Your task to perform on an android device: Search for Italian restaurants on Maps Image 0: 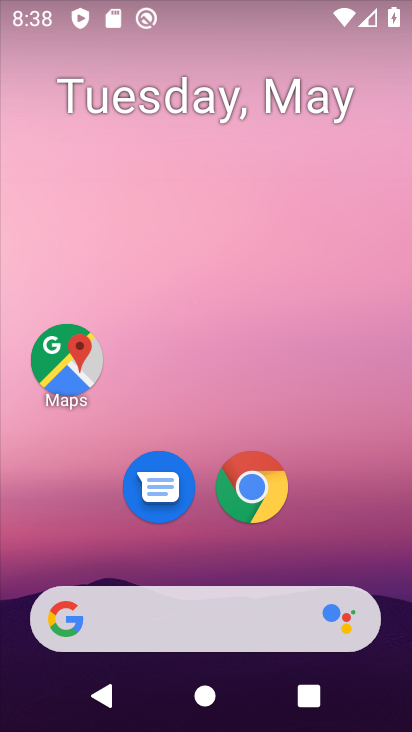
Step 0: press home button
Your task to perform on an android device: Search for Italian restaurants on Maps Image 1: 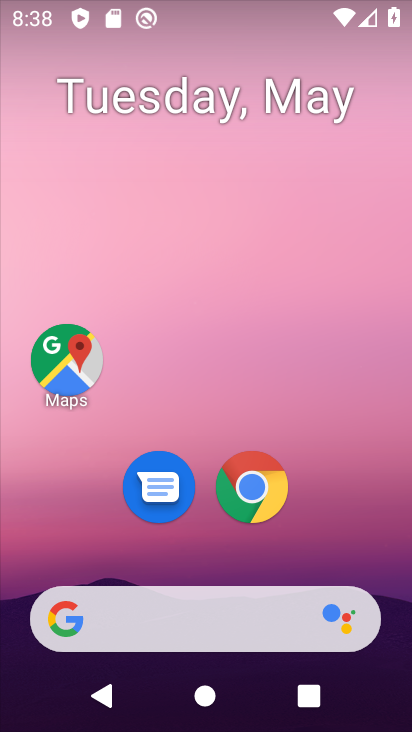
Step 1: click (76, 369)
Your task to perform on an android device: Search for Italian restaurants on Maps Image 2: 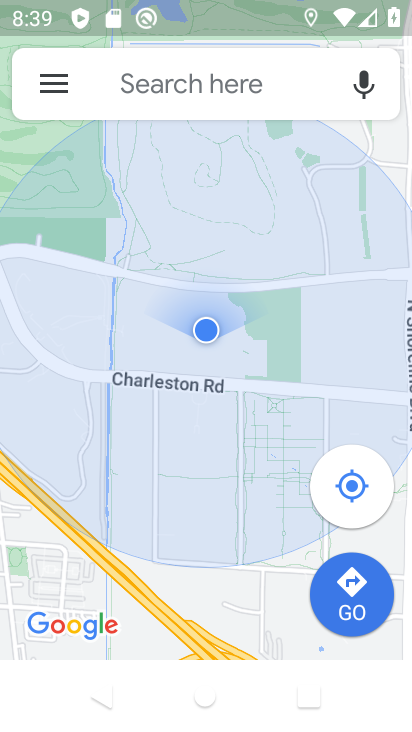
Step 2: click (234, 82)
Your task to perform on an android device: Search for Italian restaurants on Maps Image 3: 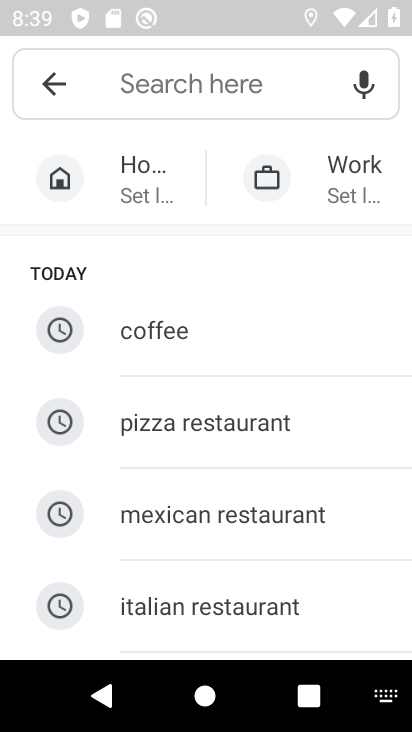
Step 3: click (203, 610)
Your task to perform on an android device: Search for Italian restaurants on Maps Image 4: 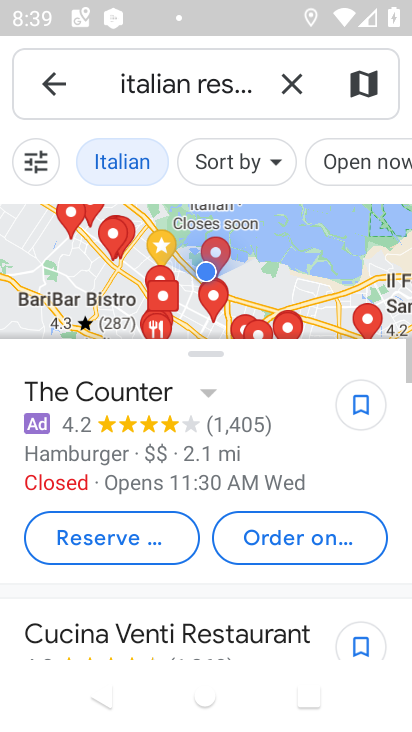
Step 4: task complete